Your task to perform on an android device: Clear all items from cart on target.com. Search for "rayovac triple a" on target.com, select the first entry, and add it to the cart. Image 0: 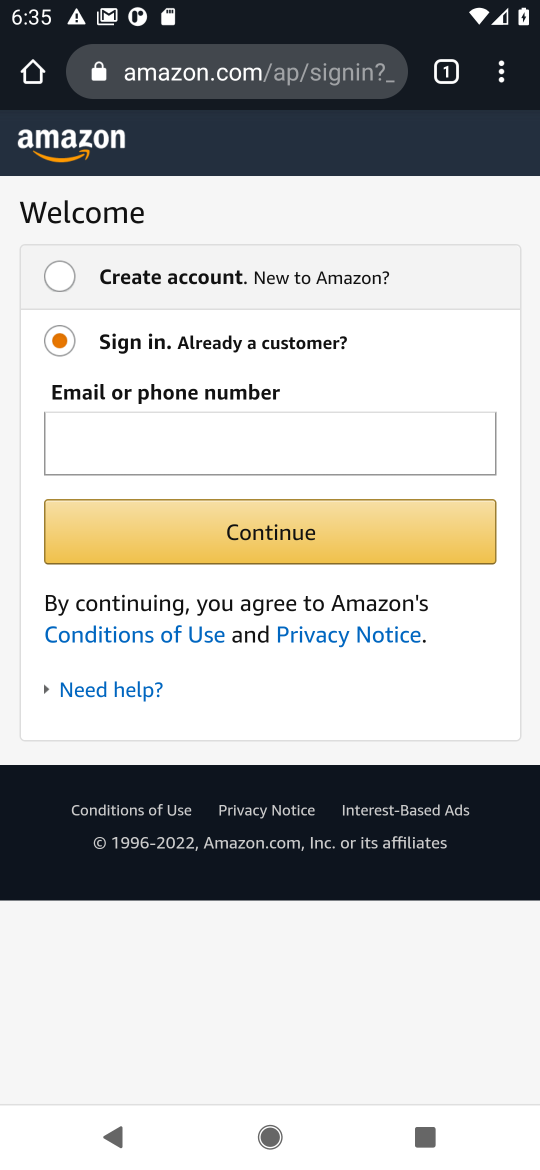
Step 0: press home button
Your task to perform on an android device: Clear all items from cart on target.com. Search for "rayovac triple a" on target.com, select the first entry, and add it to the cart. Image 1: 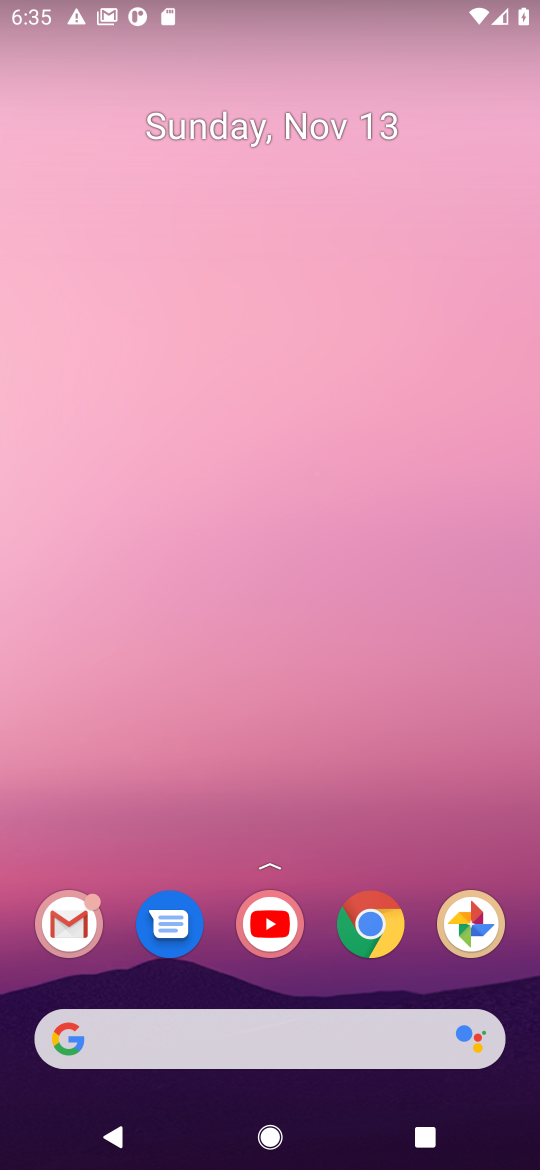
Step 1: click (376, 938)
Your task to perform on an android device: Clear all items from cart on target.com. Search for "rayovac triple a" on target.com, select the first entry, and add it to the cart. Image 2: 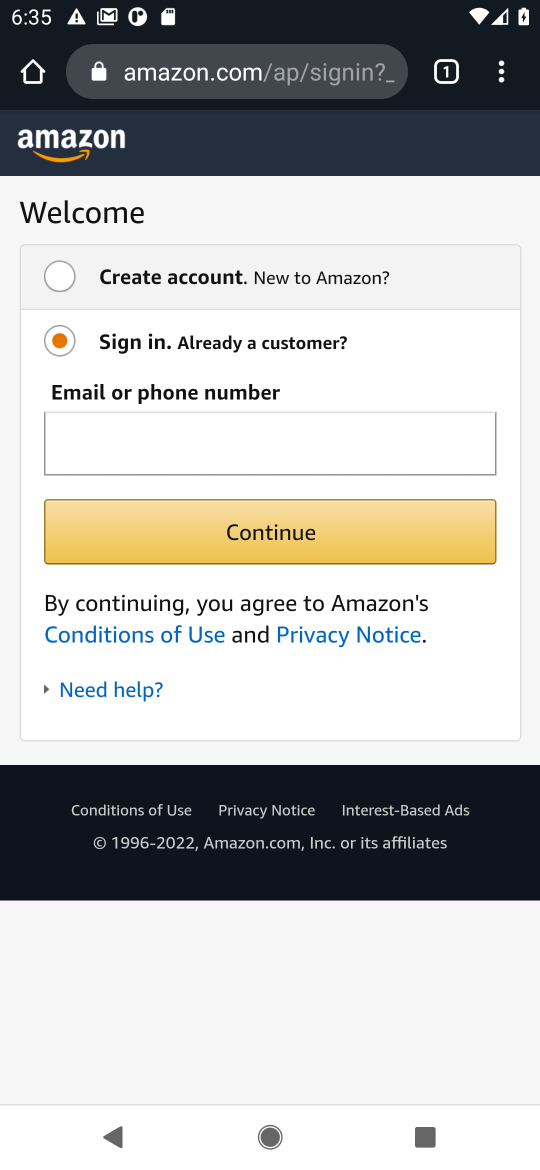
Step 2: click (226, 76)
Your task to perform on an android device: Clear all items from cart on target.com. Search for "rayovac triple a" on target.com, select the first entry, and add it to the cart. Image 3: 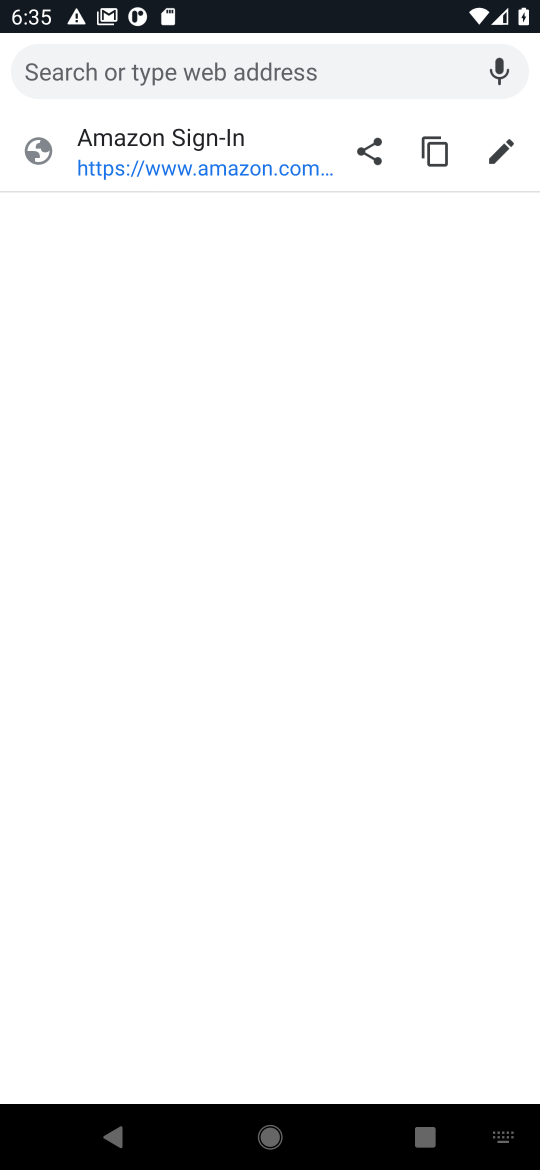
Step 3: type "target.com"
Your task to perform on an android device: Clear all items from cart on target.com. Search for "rayovac triple a" on target.com, select the first entry, and add it to the cart. Image 4: 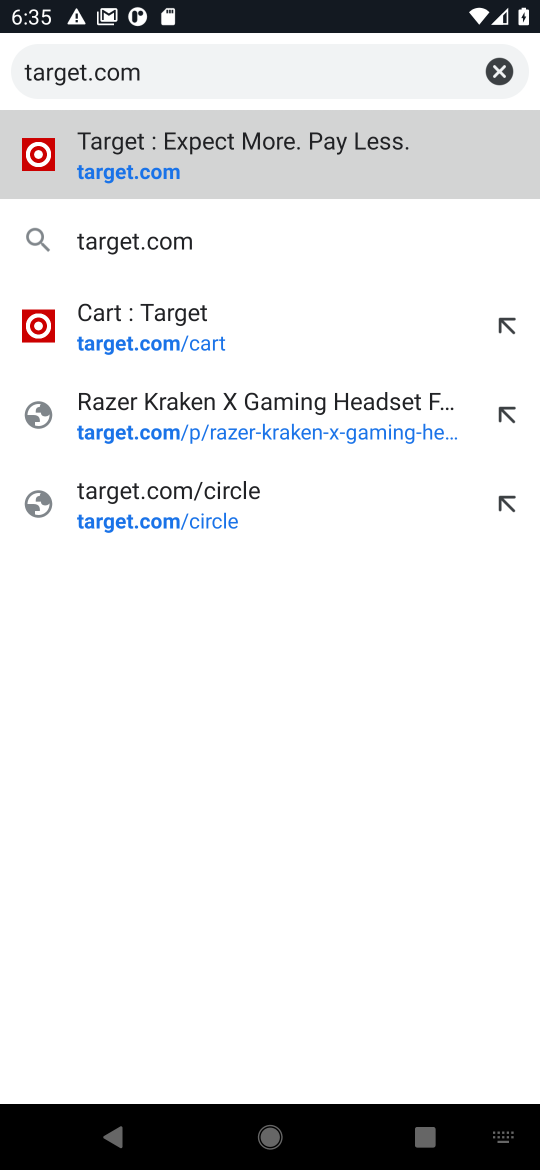
Step 4: click (132, 179)
Your task to perform on an android device: Clear all items from cart on target.com. Search for "rayovac triple a" on target.com, select the first entry, and add it to the cart. Image 5: 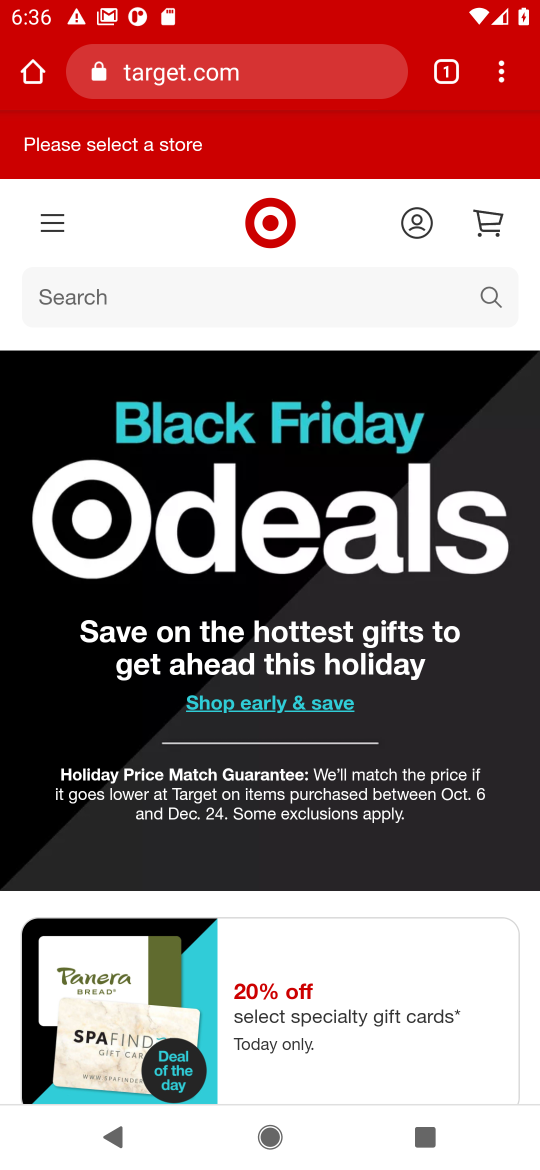
Step 5: click (488, 231)
Your task to perform on an android device: Clear all items from cart on target.com. Search for "rayovac triple a" on target.com, select the first entry, and add it to the cart. Image 6: 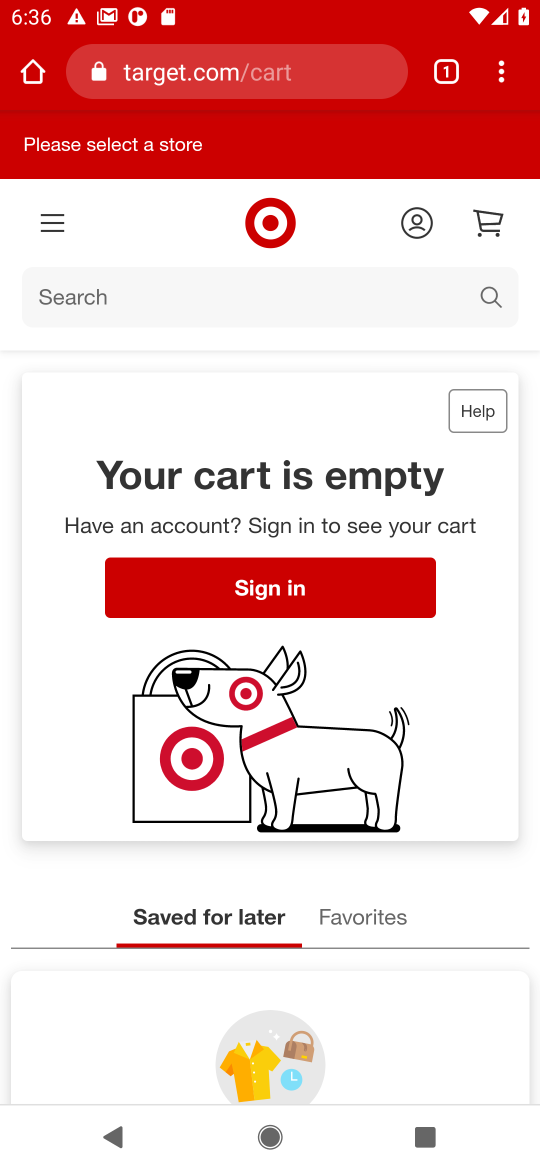
Step 6: click (481, 296)
Your task to perform on an android device: Clear all items from cart on target.com. Search for "rayovac triple a" on target.com, select the first entry, and add it to the cart. Image 7: 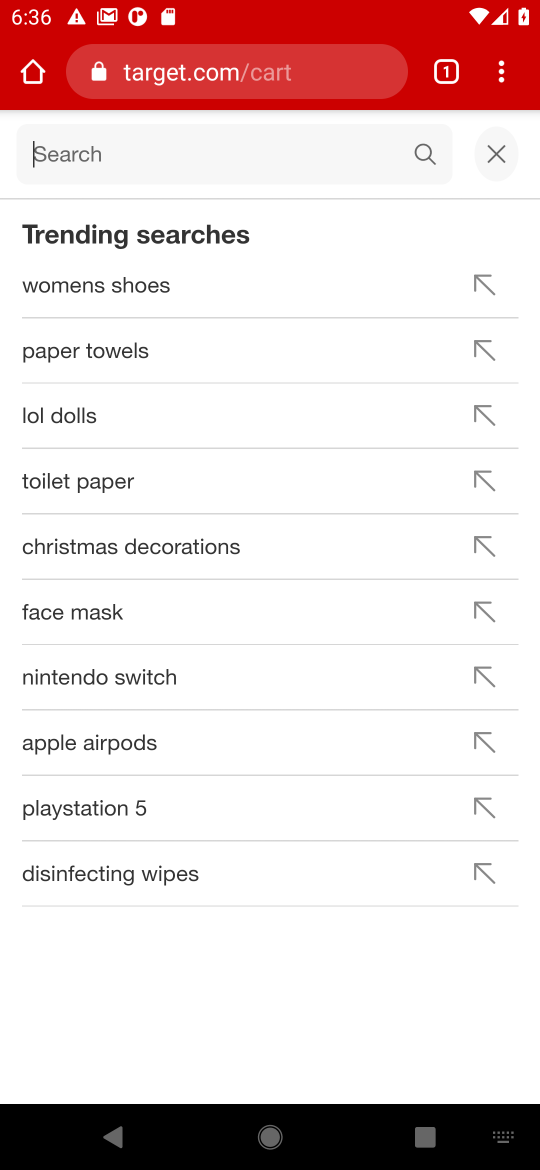
Step 7: type "rayovac triple a"
Your task to perform on an android device: Clear all items from cart on target.com. Search for "rayovac triple a" on target.com, select the first entry, and add it to the cart. Image 8: 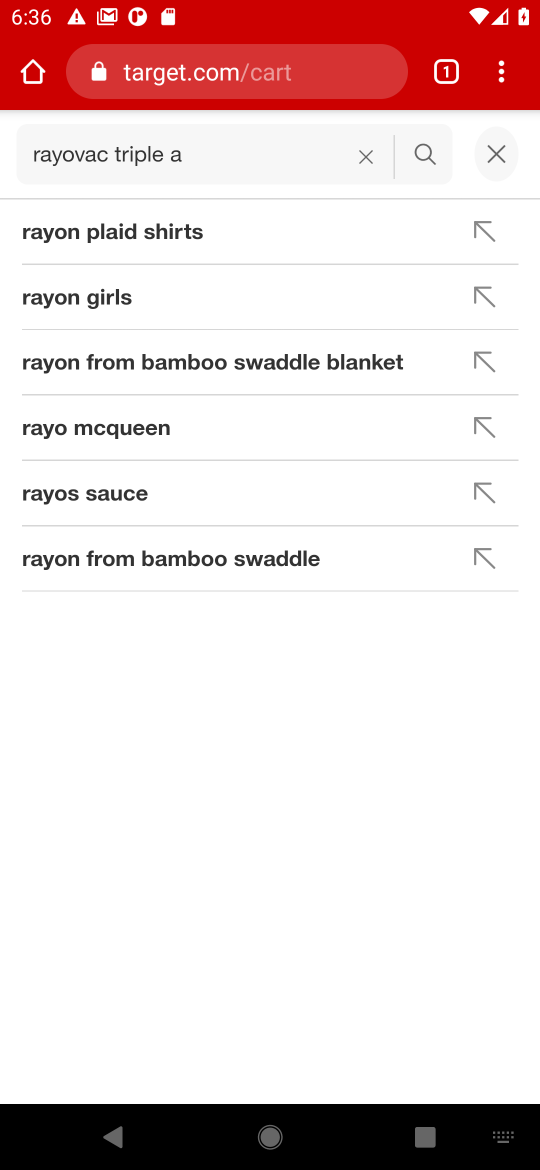
Step 8: click (424, 154)
Your task to perform on an android device: Clear all items from cart on target.com. Search for "rayovac triple a" on target.com, select the first entry, and add it to the cart. Image 9: 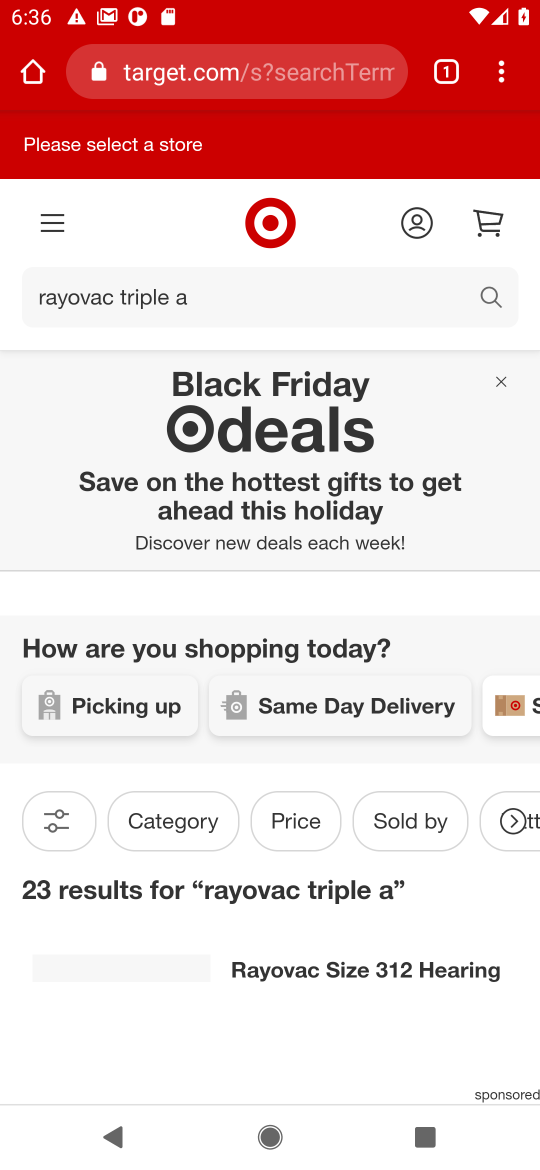
Step 9: task complete